Your task to perform on an android device: Is it going to rain today? Image 0: 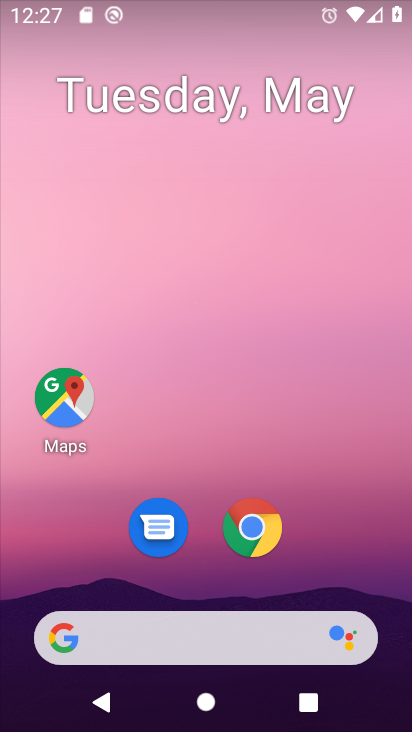
Step 0: click (236, 644)
Your task to perform on an android device: Is it going to rain today? Image 1: 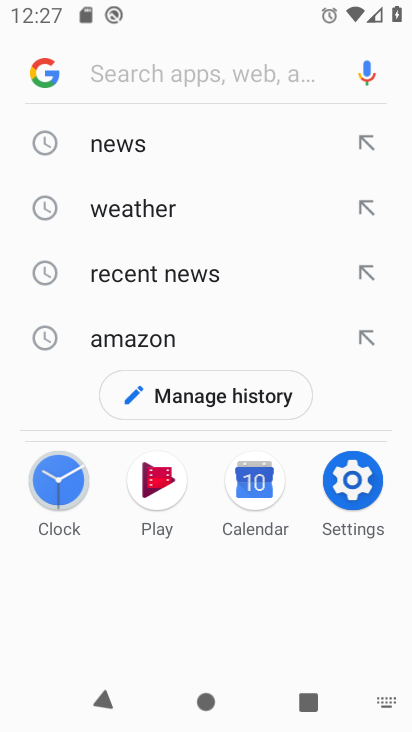
Step 1: type "Is it going to rain today?"
Your task to perform on an android device: Is it going to rain today? Image 2: 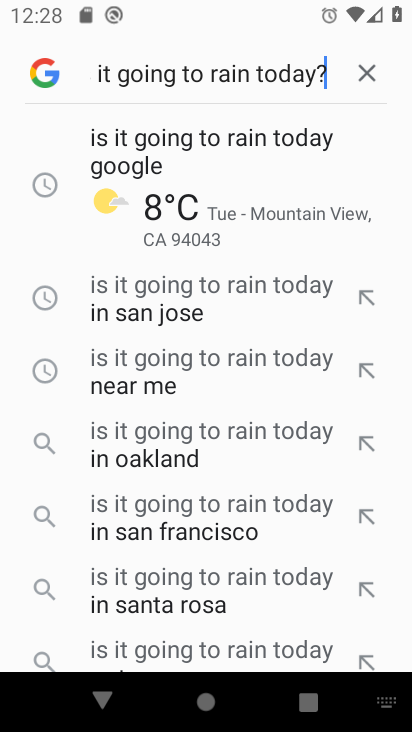
Step 2: click (196, 148)
Your task to perform on an android device: Is it going to rain today? Image 3: 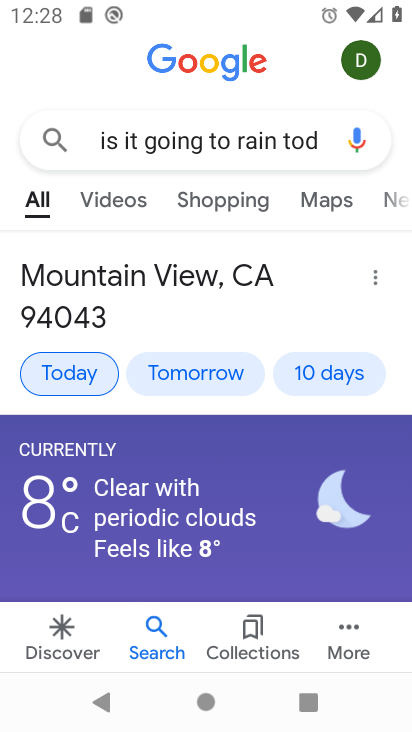
Step 3: task complete